Your task to perform on an android device: change notification settings in the gmail app Image 0: 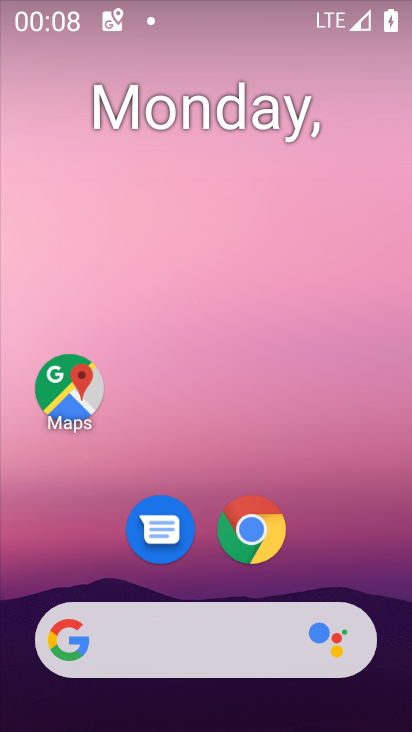
Step 0: drag from (345, 550) to (253, 90)
Your task to perform on an android device: change notification settings in the gmail app Image 1: 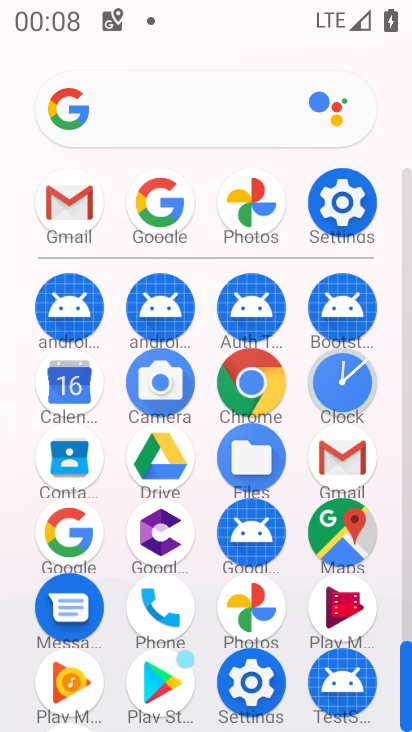
Step 1: click (71, 203)
Your task to perform on an android device: change notification settings in the gmail app Image 2: 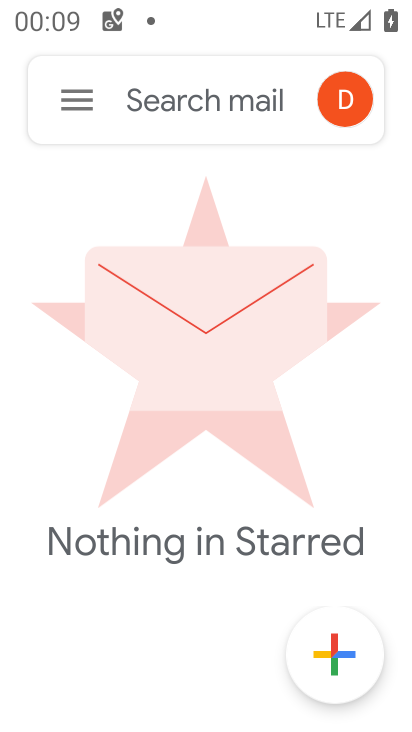
Step 2: click (76, 103)
Your task to perform on an android device: change notification settings in the gmail app Image 3: 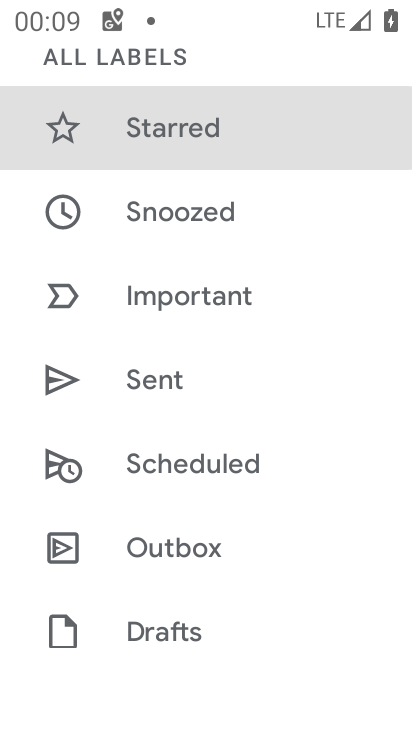
Step 3: drag from (211, 518) to (182, 265)
Your task to perform on an android device: change notification settings in the gmail app Image 4: 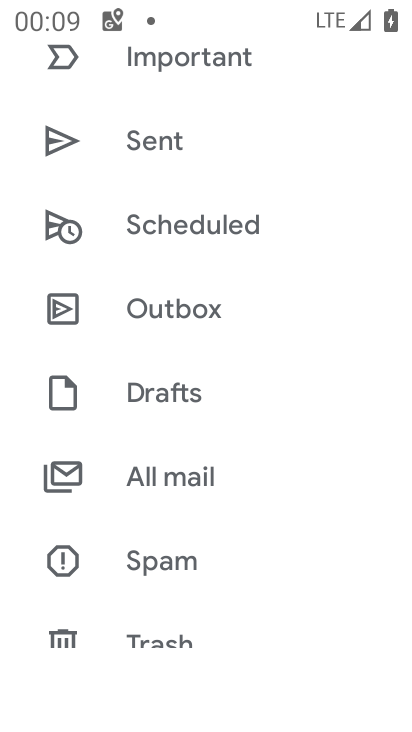
Step 4: drag from (171, 523) to (136, 261)
Your task to perform on an android device: change notification settings in the gmail app Image 5: 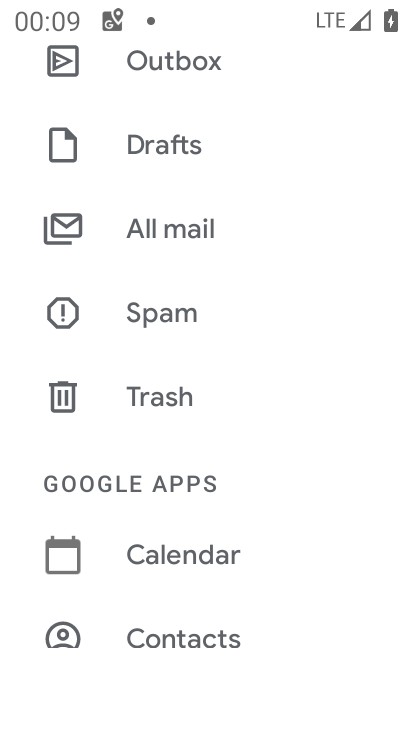
Step 5: drag from (167, 494) to (123, 253)
Your task to perform on an android device: change notification settings in the gmail app Image 6: 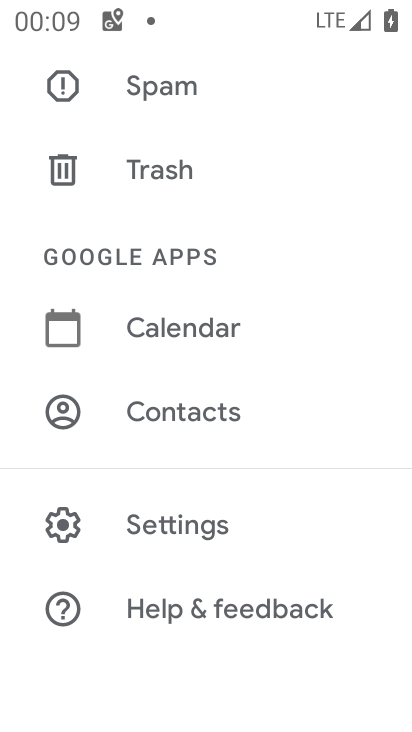
Step 6: click (178, 524)
Your task to perform on an android device: change notification settings in the gmail app Image 7: 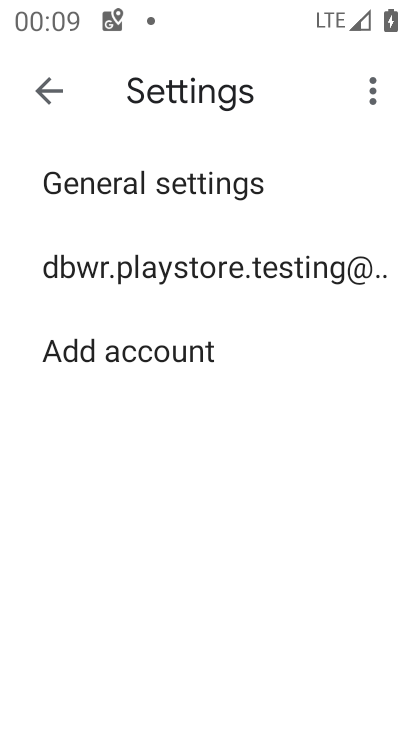
Step 7: click (219, 270)
Your task to perform on an android device: change notification settings in the gmail app Image 8: 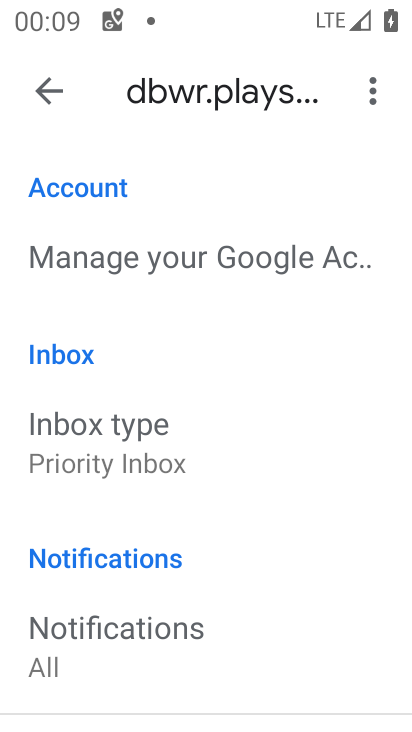
Step 8: drag from (191, 600) to (247, 406)
Your task to perform on an android device: change notification settings in the gmail app Image 9: 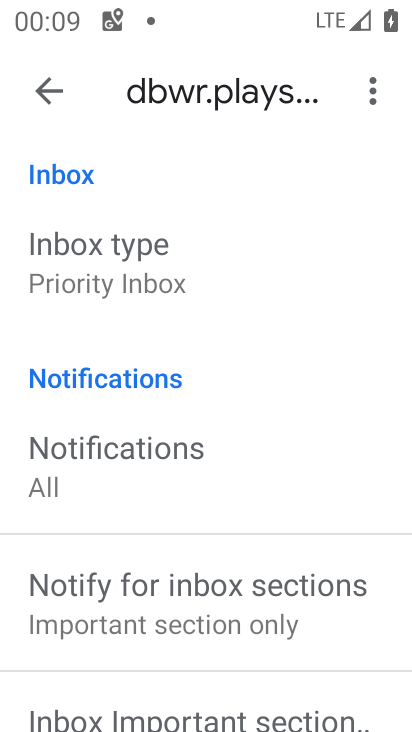
Step 9: drag from (190, 502) to (255, 361)
Your task to perform on an android device: change notification settings in the gmail app Image 10: 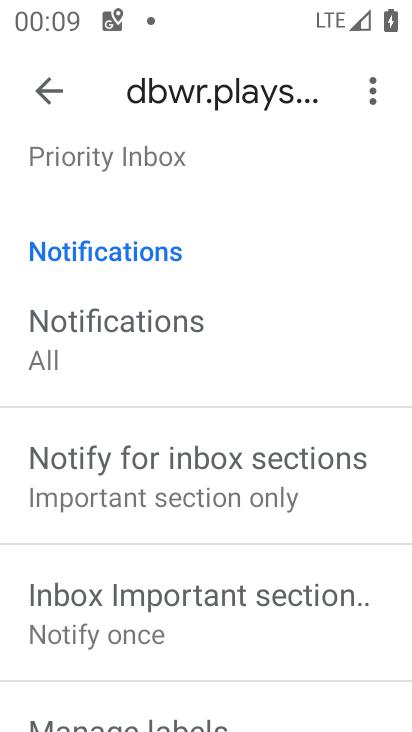
Step 10: drag from (206, 635) to (259, 449)
Your task to perform on an android device: change notification settings in the gmail app Image 11: 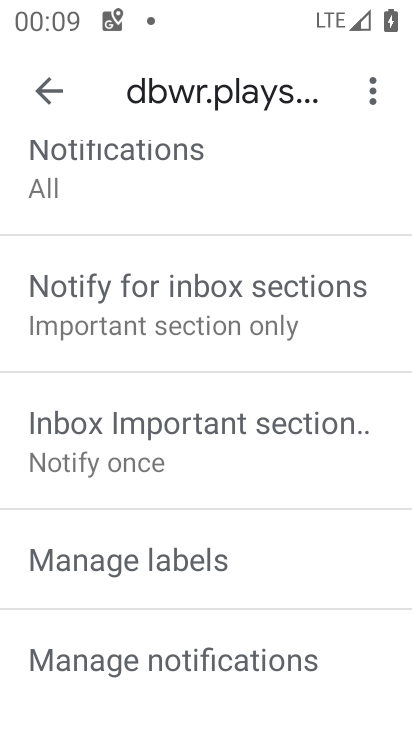
Step 11: drag from (226, 617) to (318, 468)
Your task to perform on an android device: change notification settings in the gmail app Image 12: 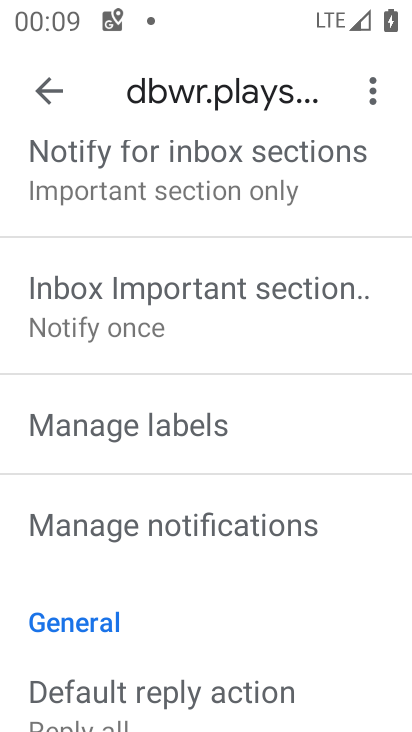
Step 12: click (239, 522)
Your task to perform on an android device: change notification settings in the gmail app Image 13: 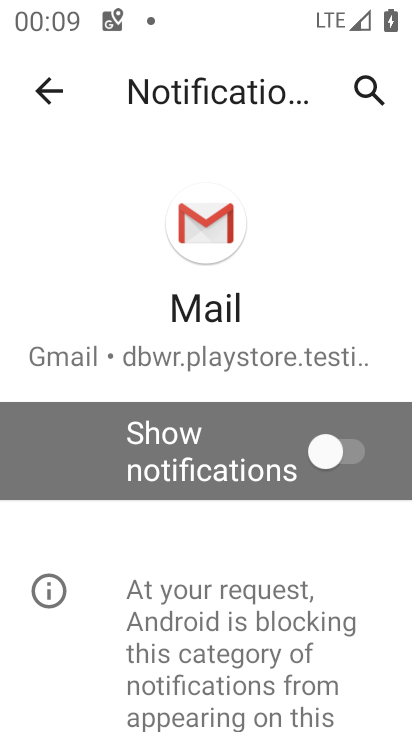
Step 13: click (326, 450)
Your task to perform on an android device: change notification settings in the gmail app Image 14: 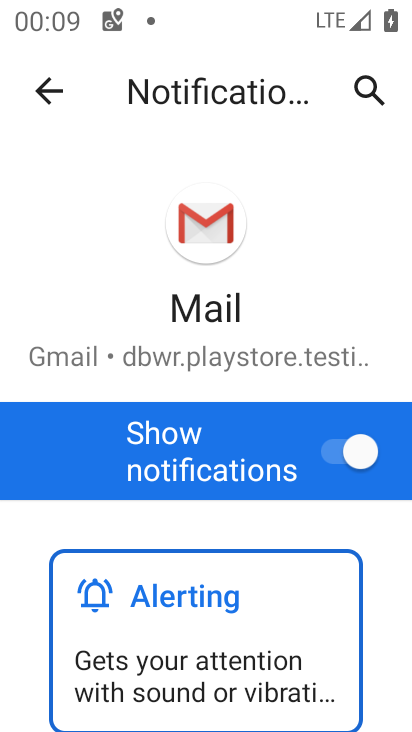
Step 14: task complete